Your task to perform on an android device: open a bookmark in the chrome app Image 0: 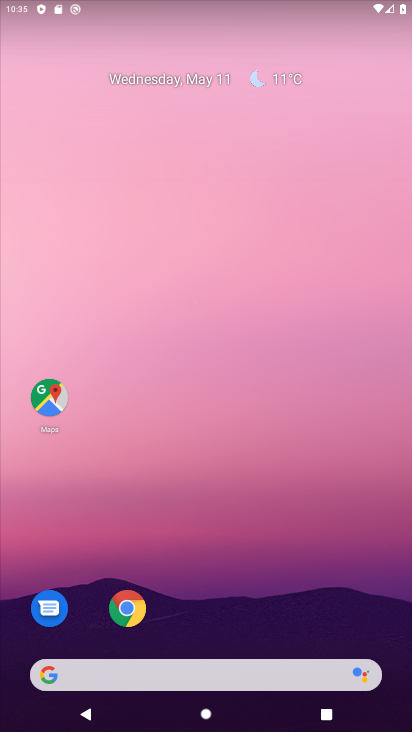
Step 0: click (126, 601)
Your task to perform on an android device: open a bookmark in the chrome app Image 1: 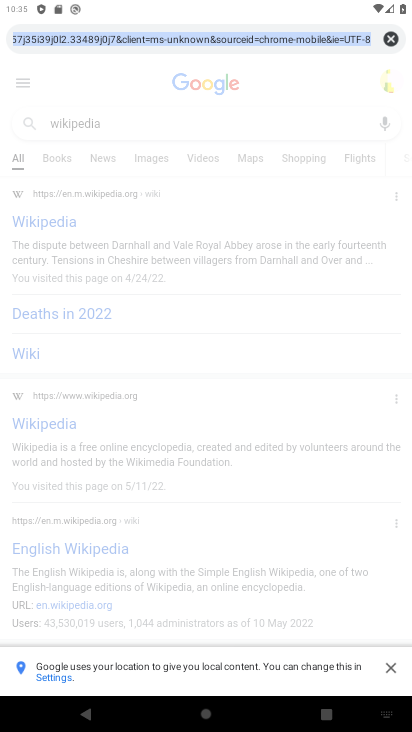
Step 1: click (277, 81)
Your task to perform on an android device: open a bookmark in the chrome app Image 2: 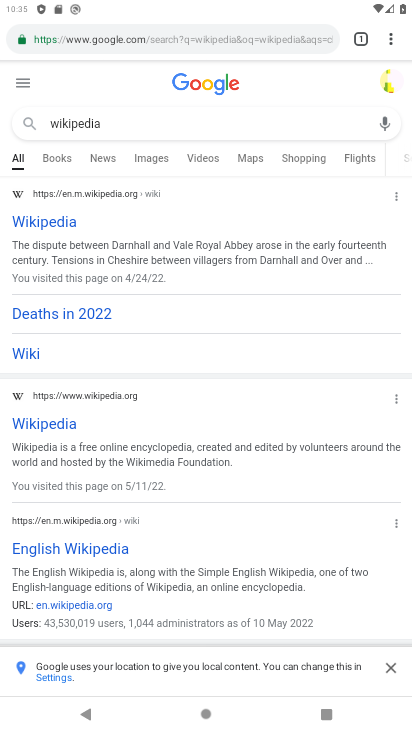
Step 2: click (391, 40)
Your task to perform on an android device: open a bookmark in the chrome app Image 3: 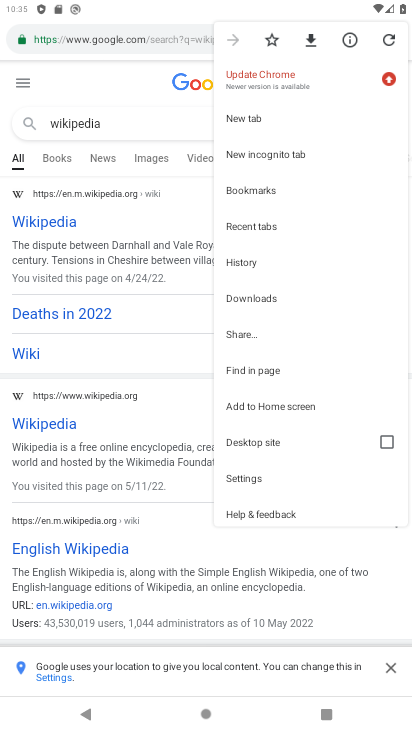
Step 3: click (257, 195)
Your task to perform on an android device: open a bookmark in the chrome app Image 4: 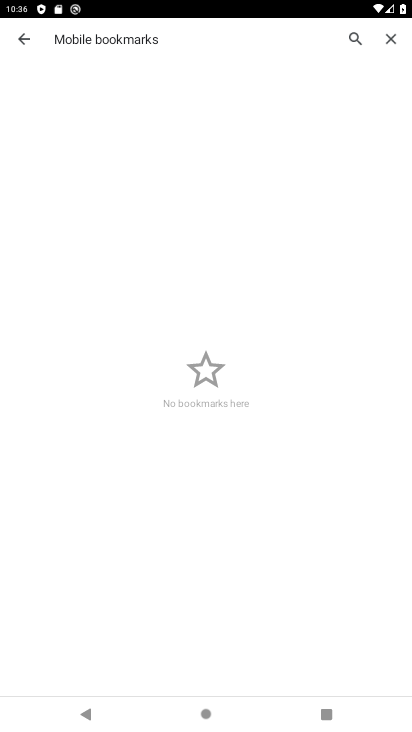
Step 4: task complete